Your task to perform on an android device: turn on data saver in the chrome app Image 0: 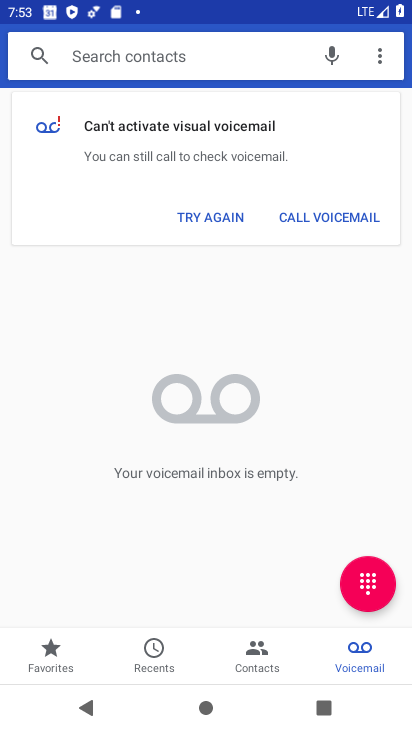
Step 0: press home button
Your task to perform on an android device: turn on data saver in the chrome app Image 1: 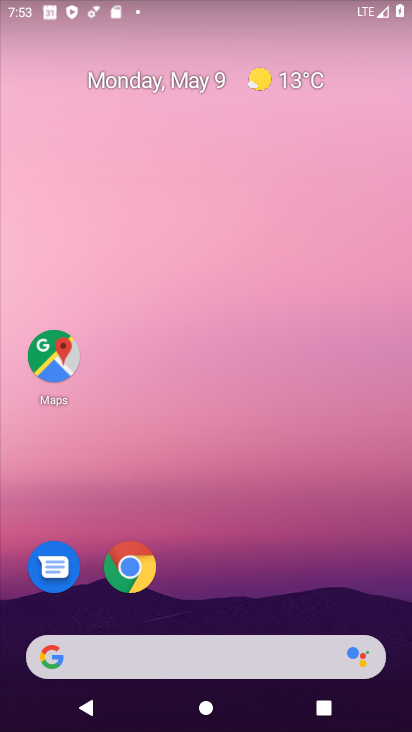
Step 1: click (126, 571)
Your task to perform on an android device: turn on data saver in the chrome app Image 2: 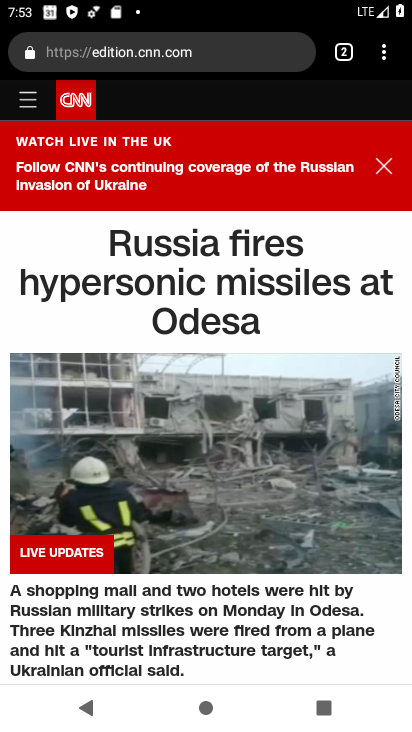
Step 2: click (385, 49)
Your task to perform on an android device: turn on data saver in the chrome app Image 3: 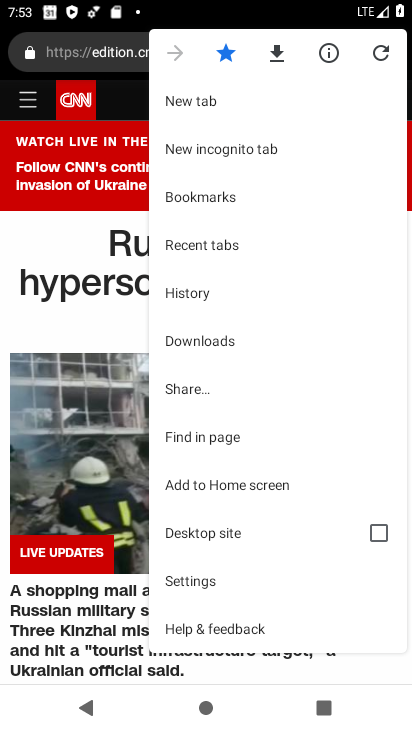
Step 3: click (225, 570)
Your task to perform on an android device: turn on data saver in the chrome app Image 4: 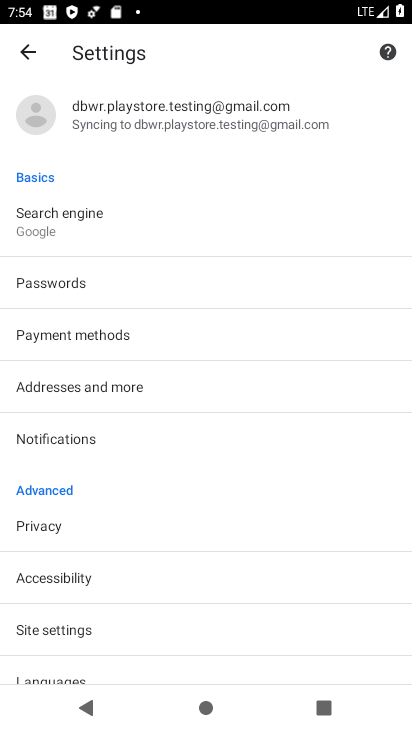
Step 4: drag from (208, 626) to (219, 387)
Your task to perform on an android device: turn on data saver in the chrome app Image 5: 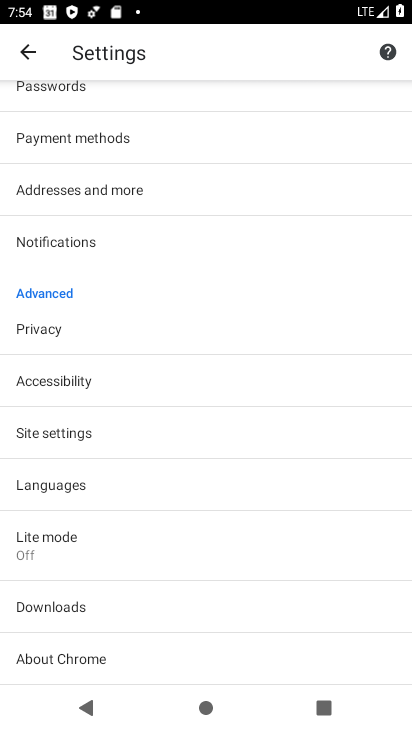
Step 5: click (153, 541)
Your task to perform on an android device: turn on data saver in the chrome app Image 6: 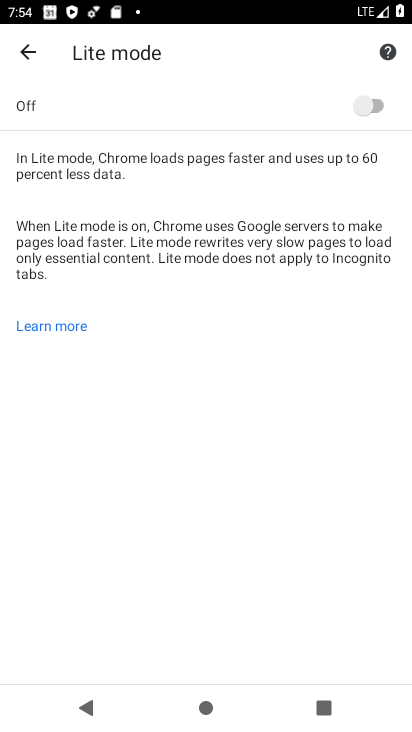
Step 6: click (361, 91)
Your task to perform on an android device: turn on data saver in the chrome app Image 7: 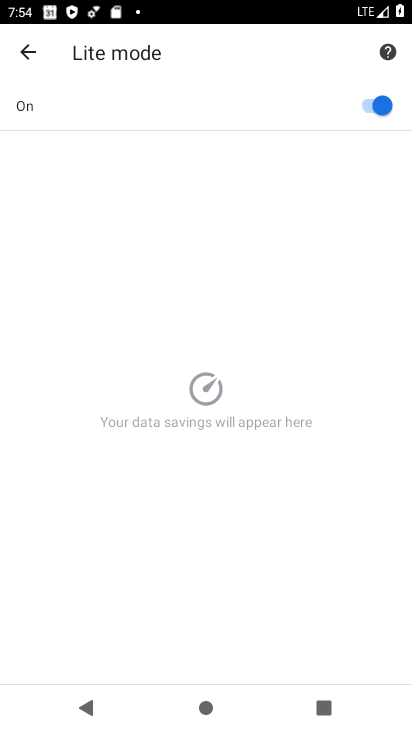
Step 7: task complete